Your task to perform on an android device: check android version Image 0: 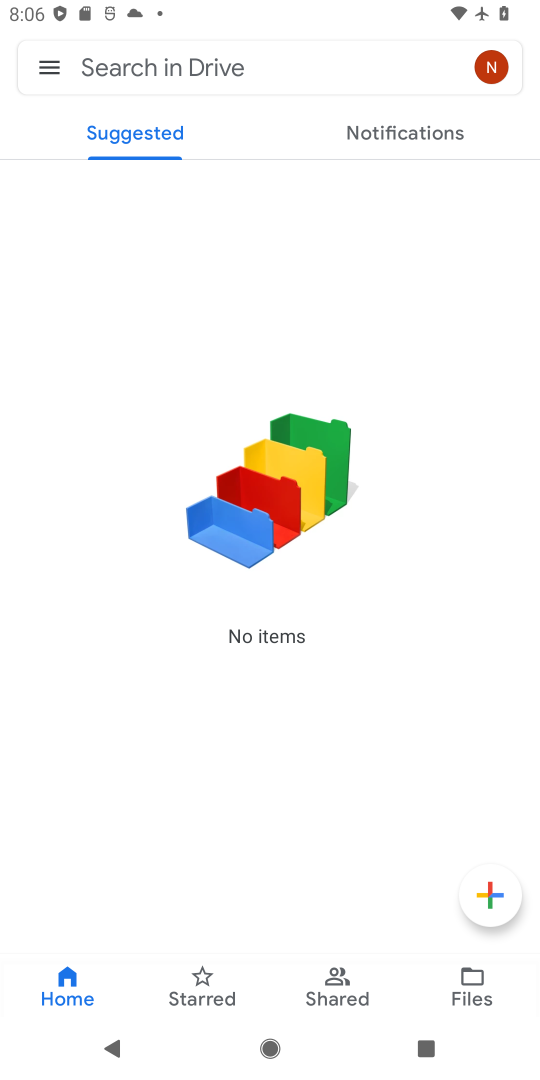
Step 0: press home button
Your task to perform on an android device: check android version Image 1: 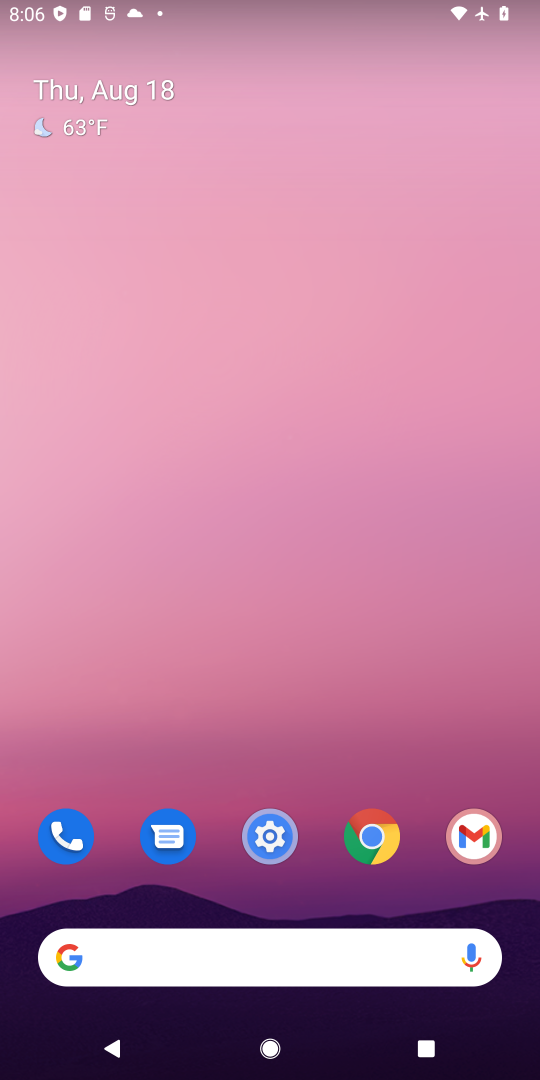
Step 1: drag from (413, 661) to (455, 47)
Your task to perform on an android device: check android version Image 2: 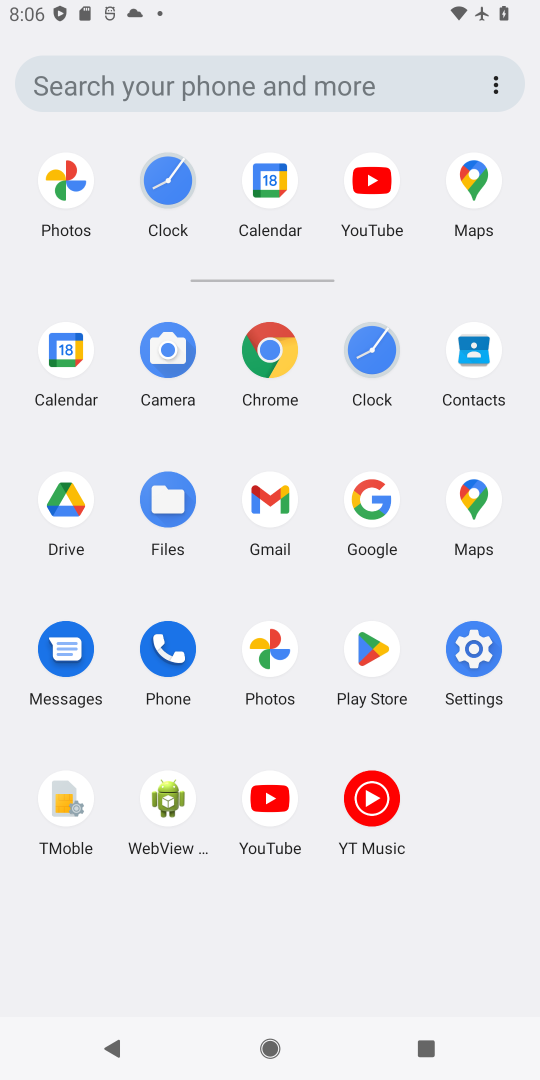
Step 2: click (479, 659)
Your task to perform on an android device: check android version Image 3: 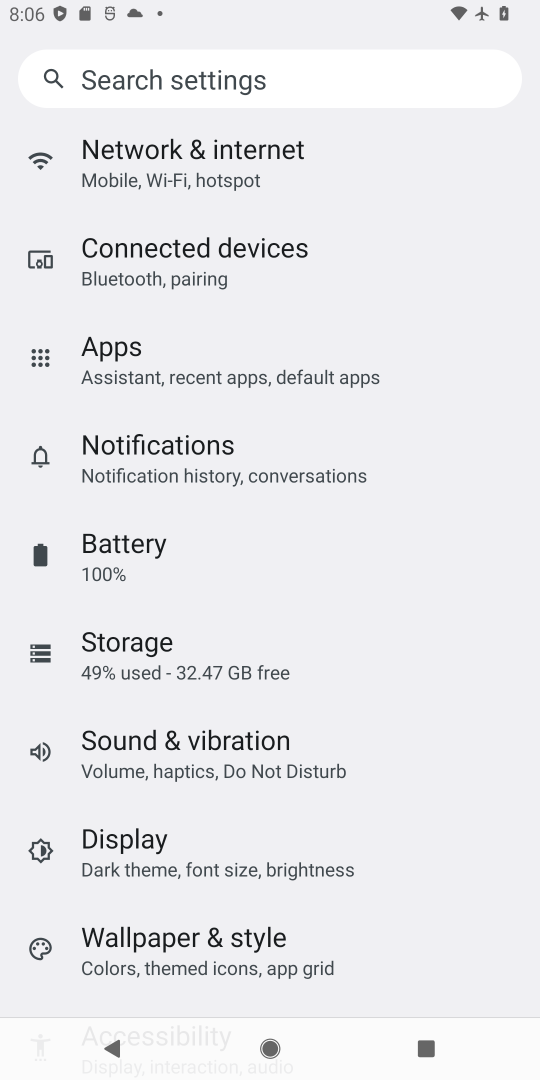
Step 3: drag from (252, 879) to (283, 55)
Your task to perform on an android device: check android version Image 4: 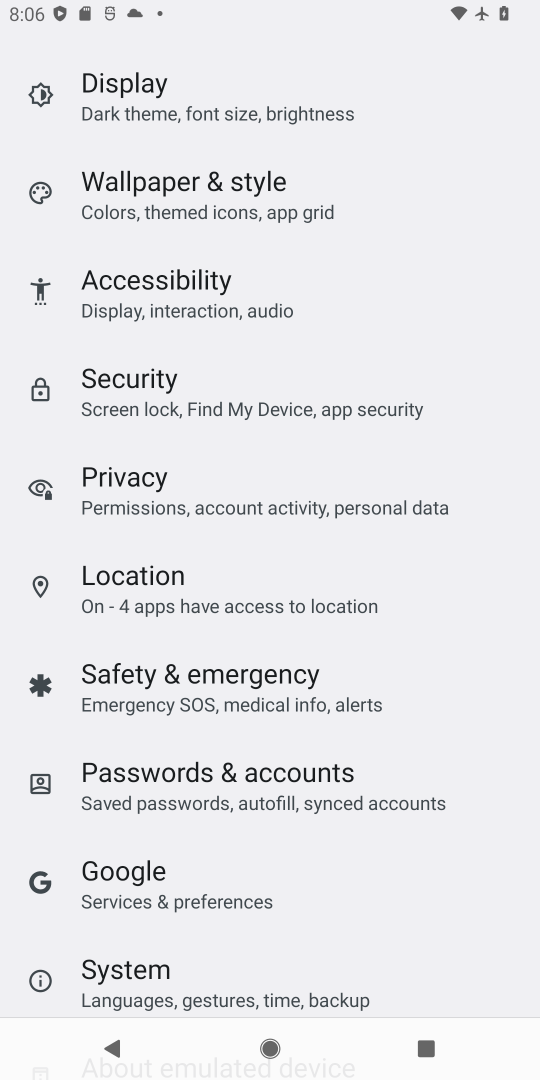
Step 4: drag from (204, 915) to (285, 125)
Your task to perform on an android device: check android version Image 5: 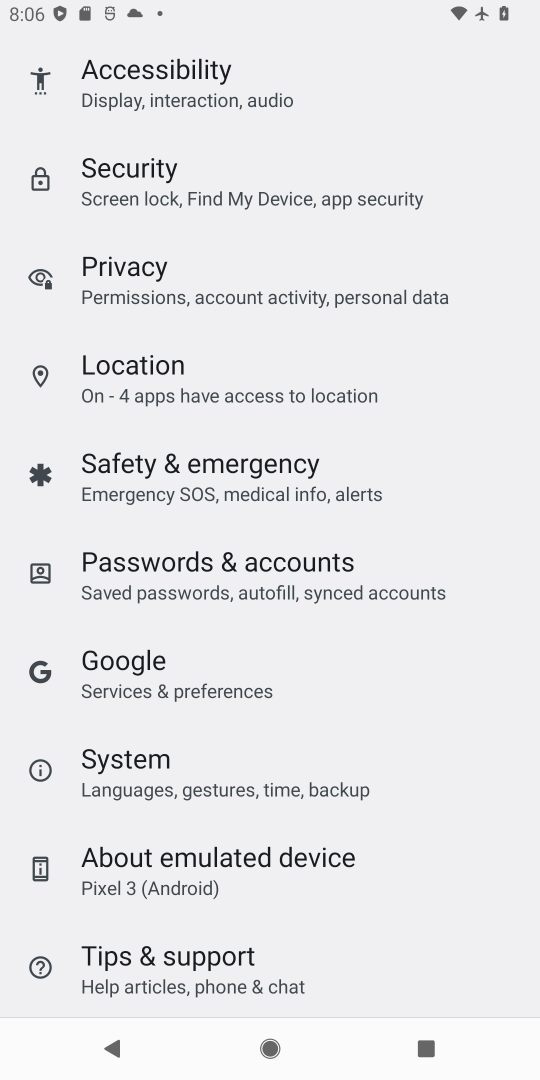
Step 5: click (206, 862)
Your task to perform on an android device: check android version Image 6: 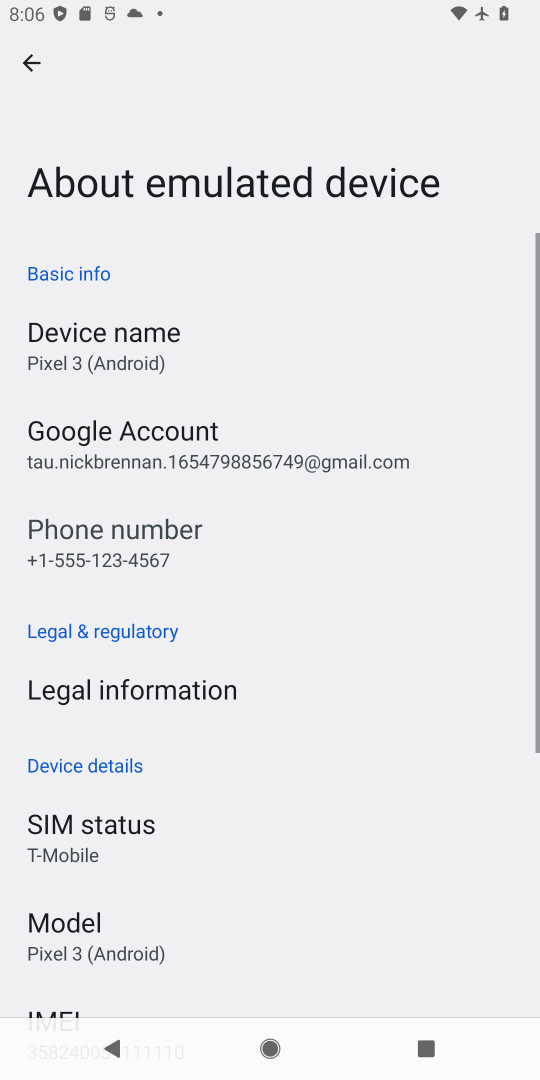
Step 6: drag from (314, 853) to (361, 129)
Your task to perform on an android device: check android version Image 7: 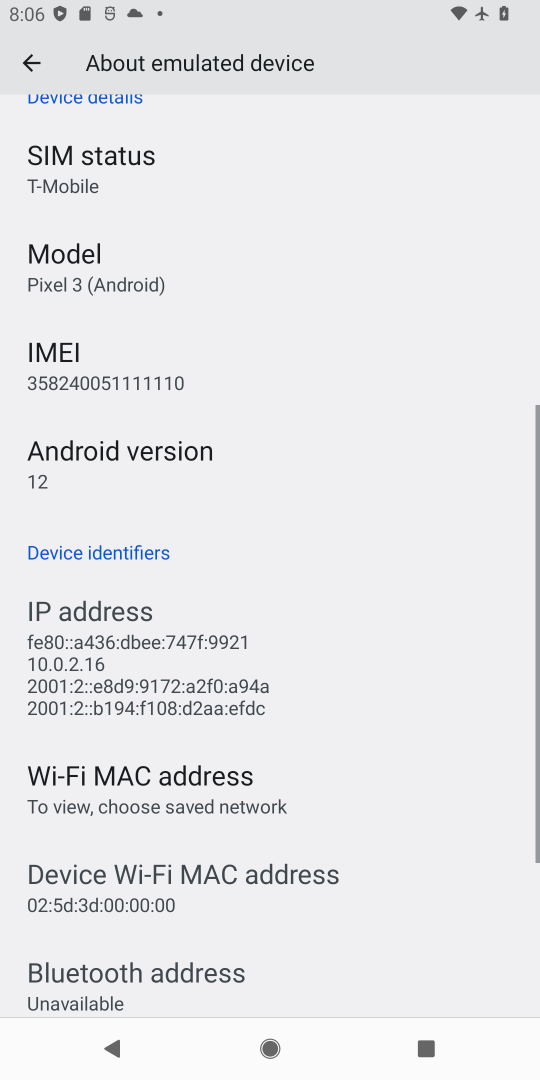
Step 7: drag from (225, 925) to (315, 251)
Your task to perform on an android device: check android version Image 8: 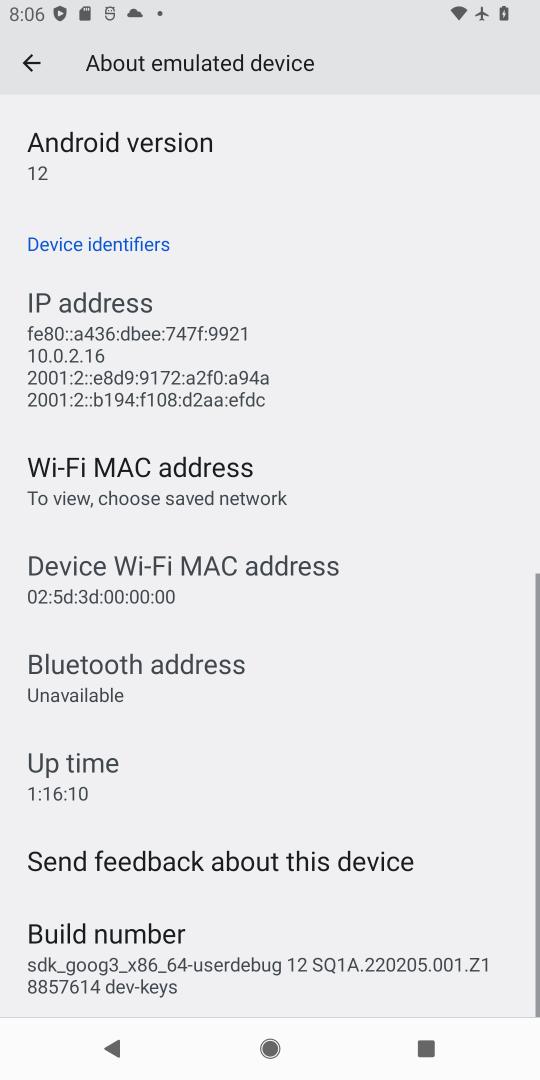
Step 8: drag from (248, 921) to (285, 396)
Your task to perform on an android device: check android version Image 9: 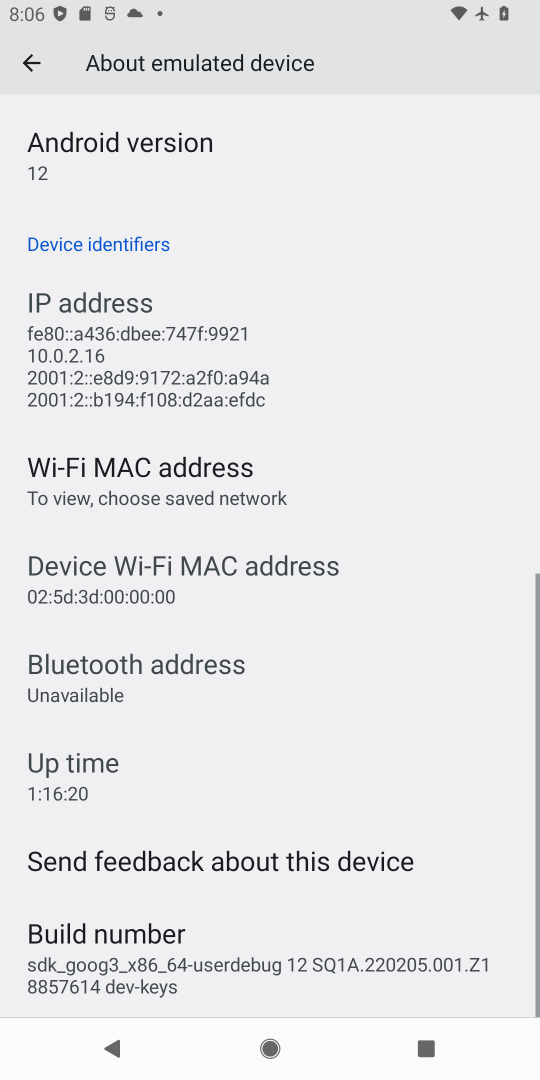
Step 9: click (198, 157)
Your task to perform on an android device: check android version Image 10: 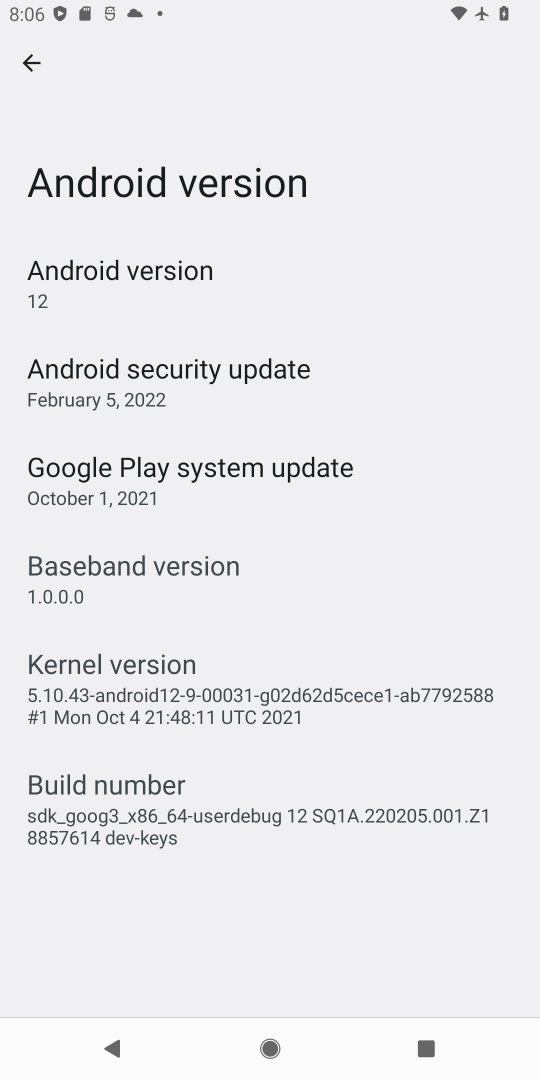
Step 10: task complete